Your task to perform on an android device: View the shopping cart on target. Add "macbook pro 15 inch" to the cart on target, then select checkout. Image 0: 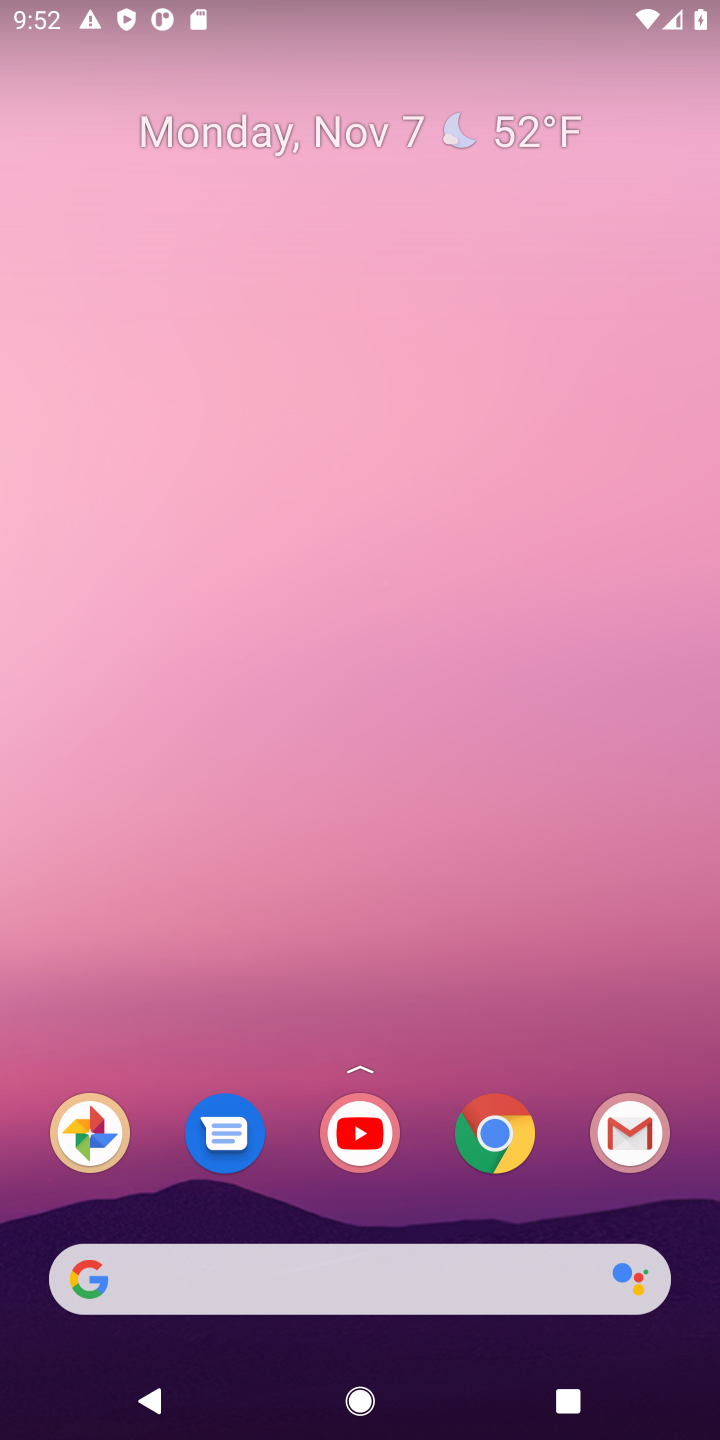
Step 0: press home button
Your task to perform on an android device: View the shopping cart on target. Add "macbook pro 15 inch" to the cart on target, then select checkout. Image 1: 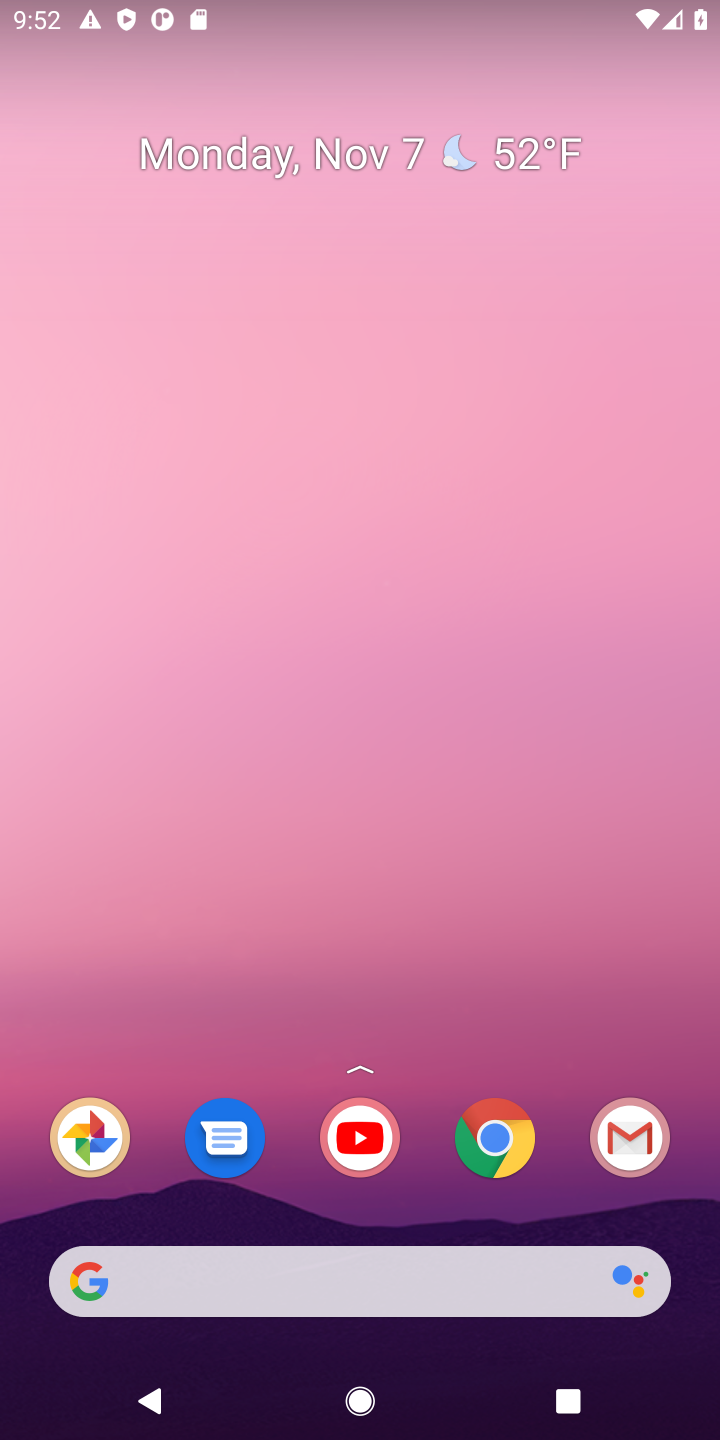
Step 1: drag from (411, 1202) to (416, 209)
Your task to perform on an android device: View the shopping cart on target. Add "macbook pro 15 inch" to the cart on target, then select checkout. Image 2: 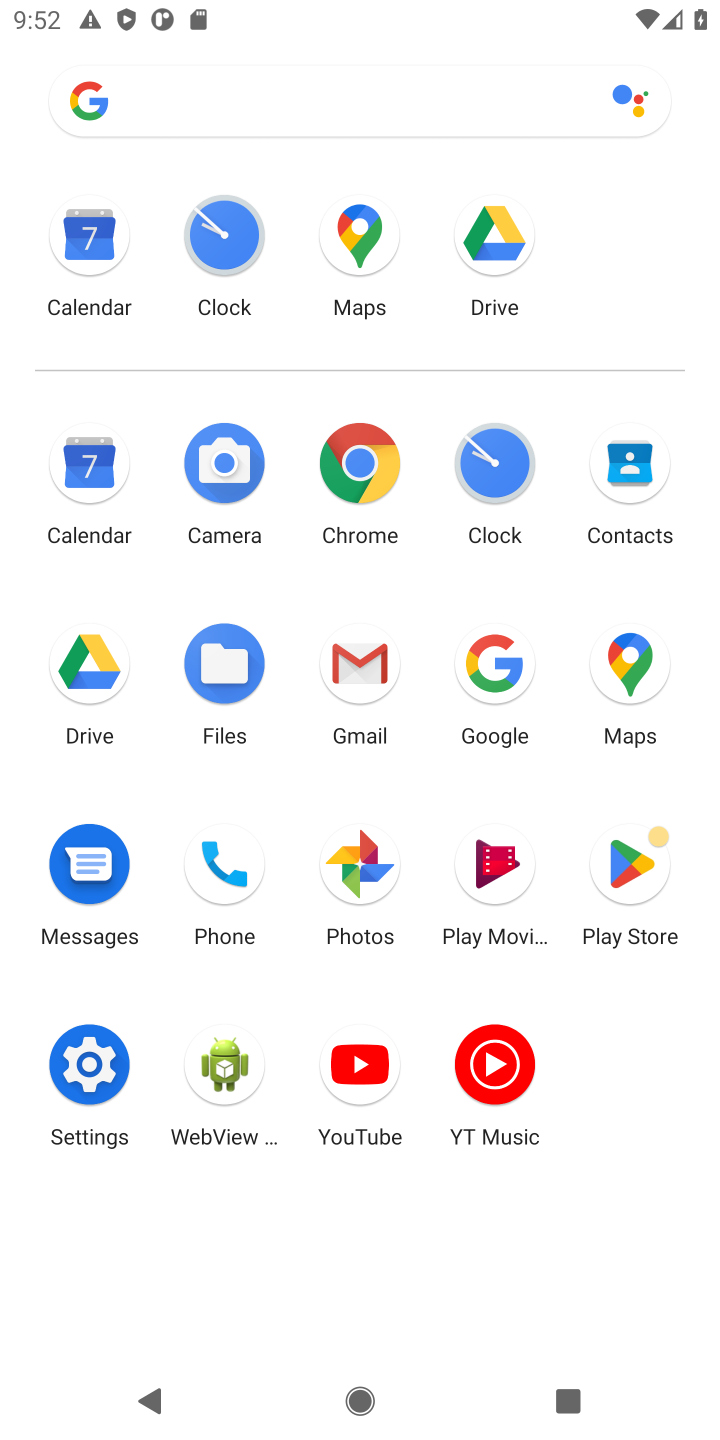
Step 2: click (361, 463)
Your task to perform on an android device: View the shopping cart on target. Add "macbook pro 15 inch" to the cart on target, then select checkout. Image 3: 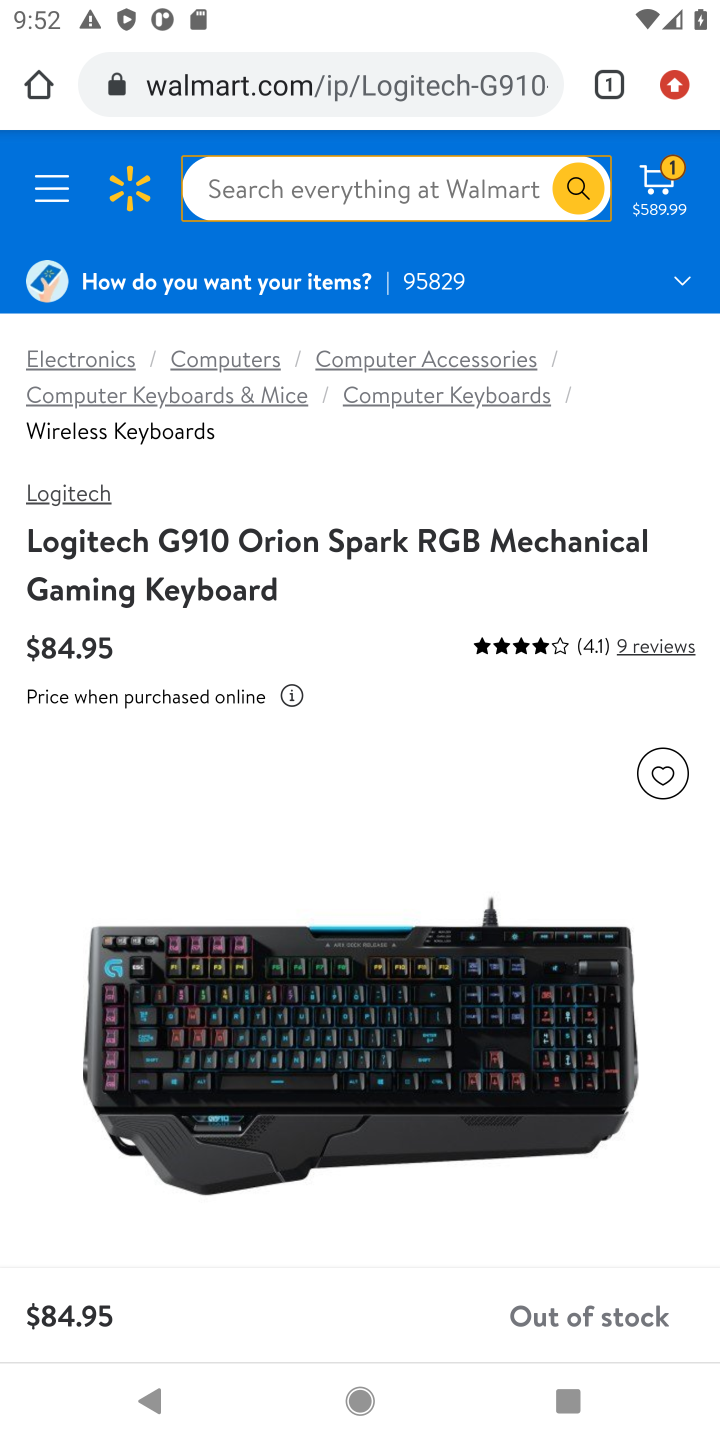
Step 3: click (386, 193)
Your task to perform on an android device: View the shopping cart on target. Add "macbook pro 15 inch" to the cart on target, then select checkout. Image 4: 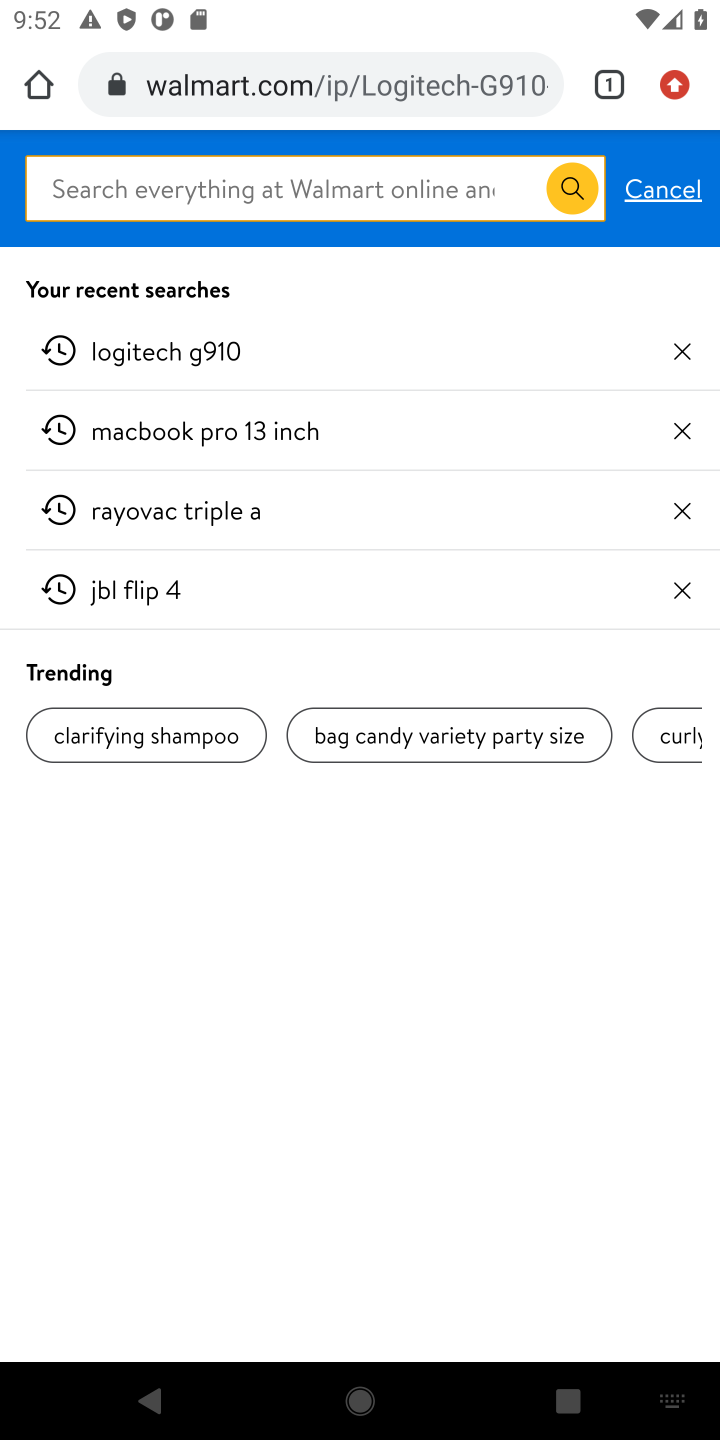
Step 4: type "target.com"
Your task to perform on an android device: View the shopping cart on target. Add "macbook pro 15 inch" to the cart on target, then select checkout. Image 5: 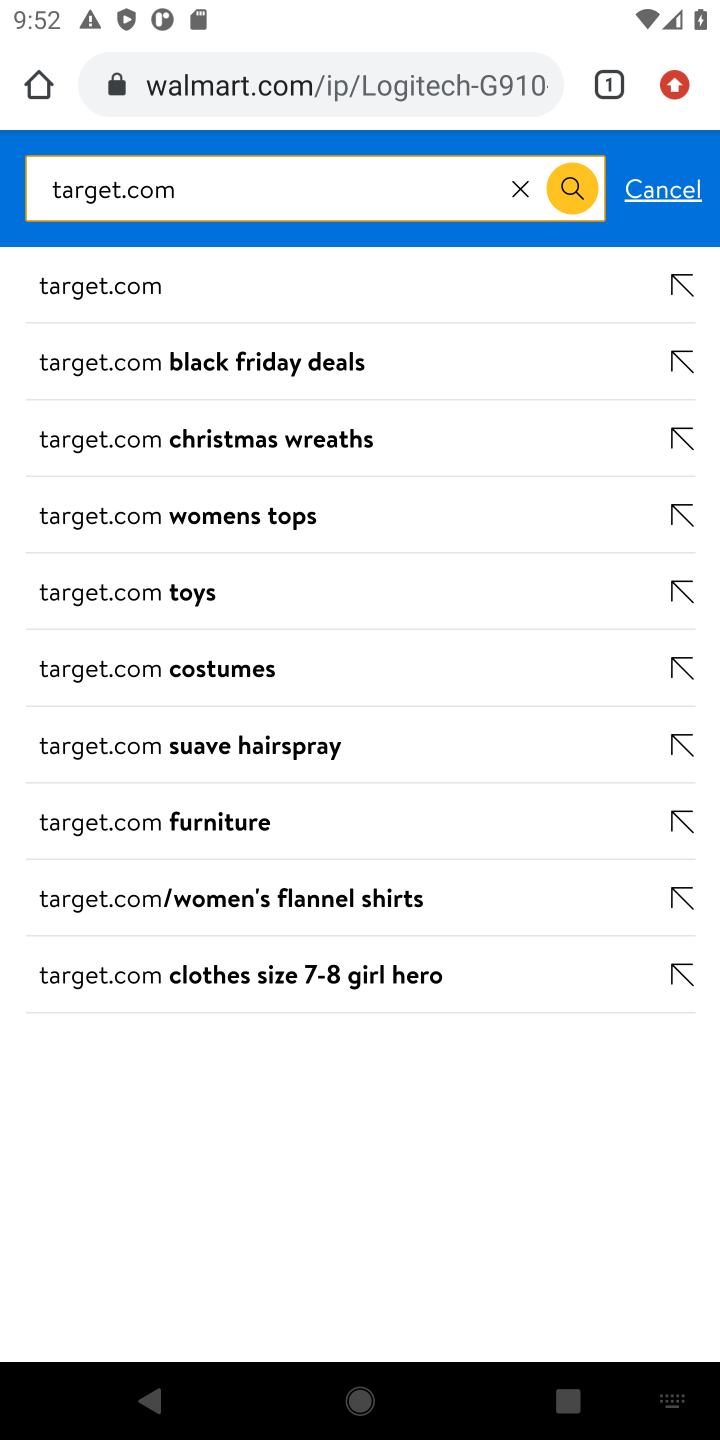
Step 5: press enter
Your task to perform on an android device: View the shopping cart on target. Add "macbook pro 15 inch" to the cart on target, then select checkout. Image 6: 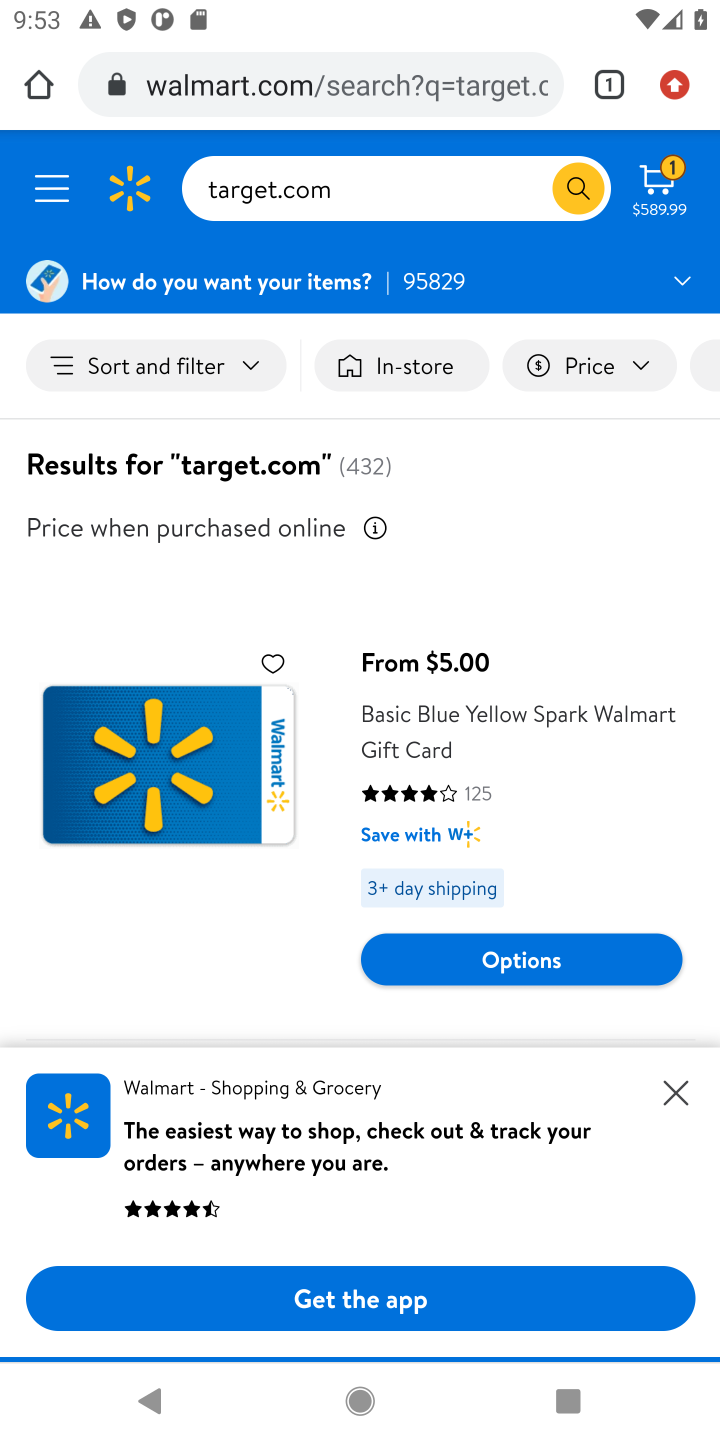
Step 6: drag from (284, 973) to (661, 91)
Your task to perform on an android device: View the shopping cart on target. Add "macbook pro 15 inch" to the cart on target, then select checkout. Image 7: 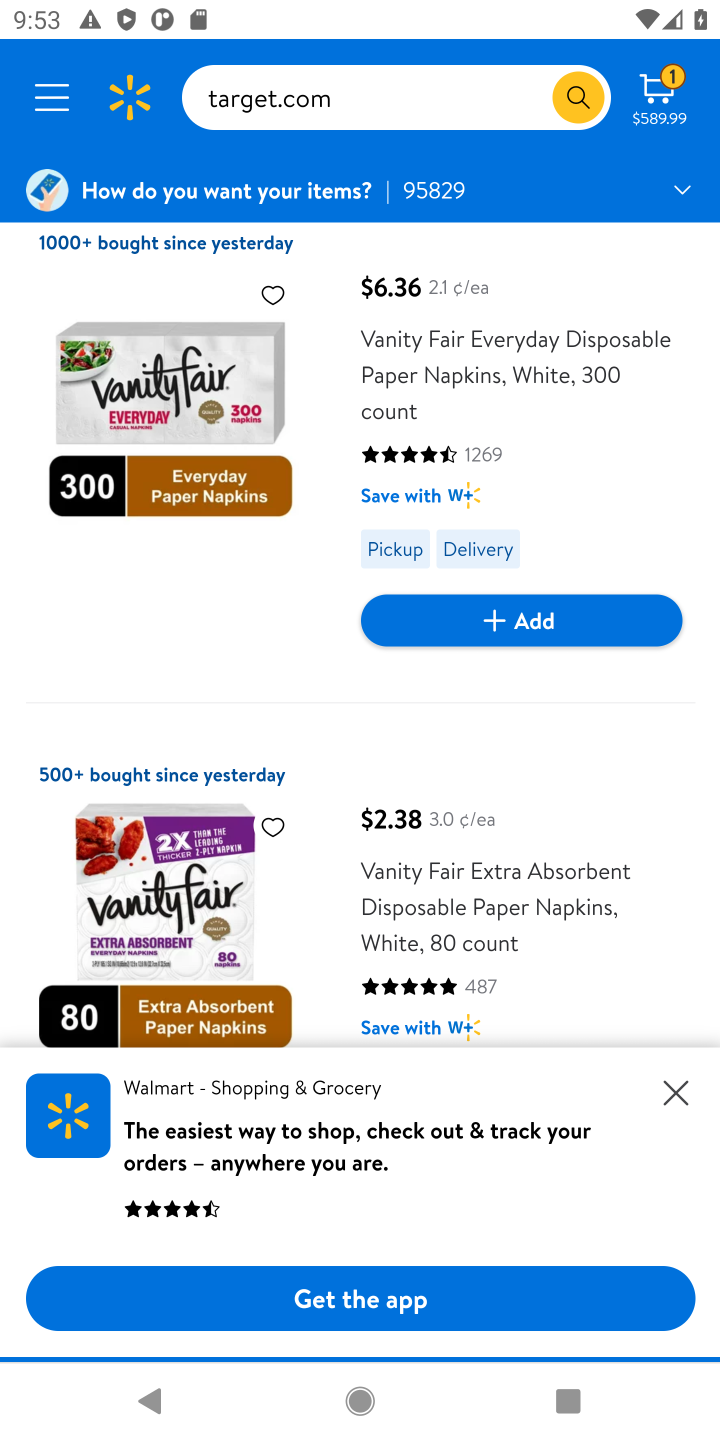
Step 7: click (652, 86)
Your task to perform on an android device: View the shopping cart on target. Add "macbook pro 15 inch" to the cart on target, then select checkout. Image 8: 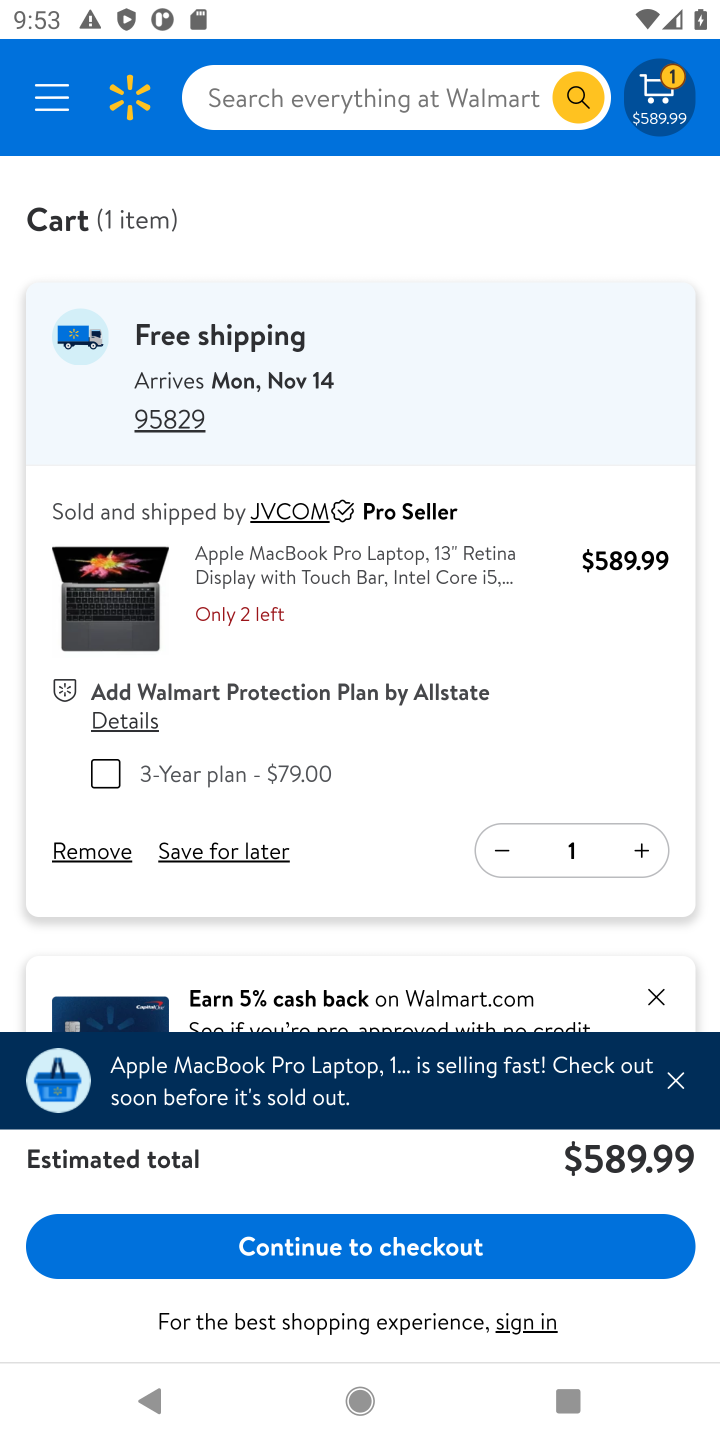
Step 8: click (428, 100)
Your task to perform on an android device: View the shopping cart on target. Add "macbook pro 15 inch" to the cart on target, then select checkout. Image 9: 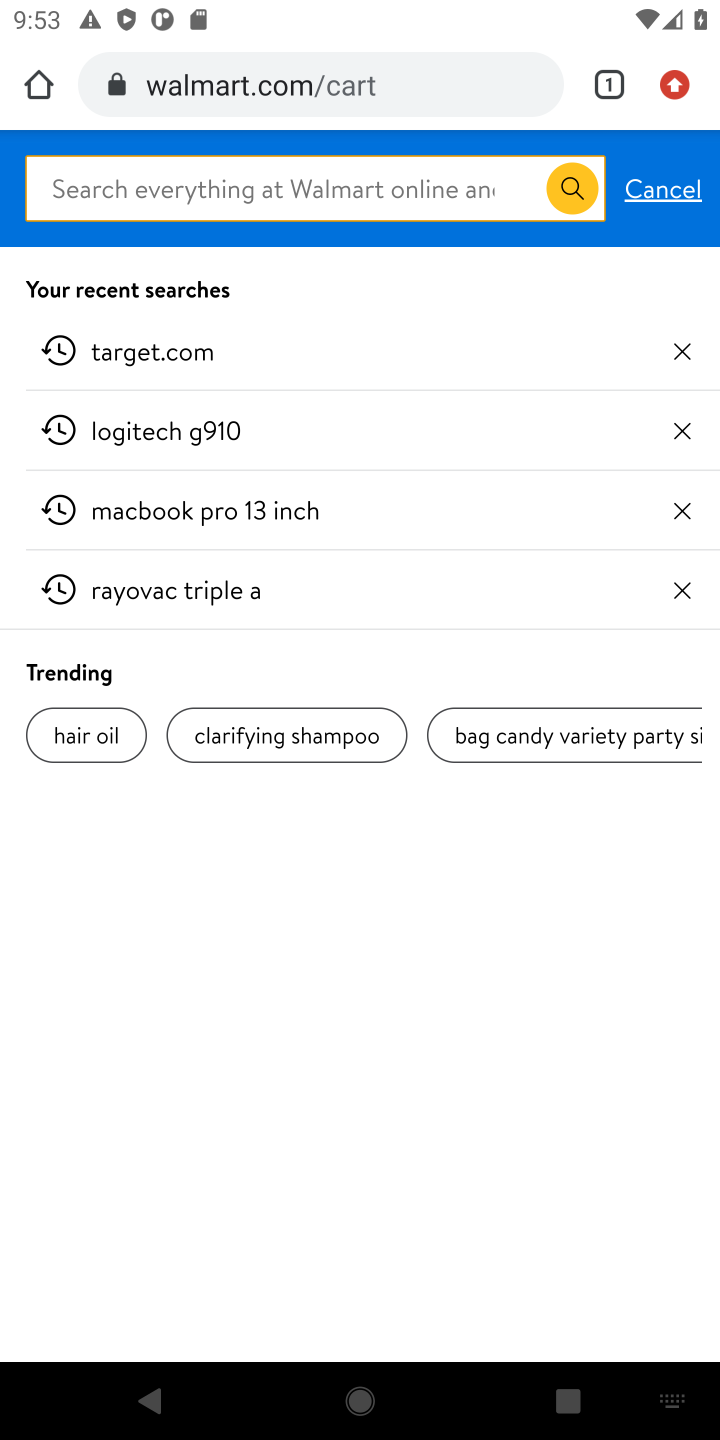
Step 9: type "macbook pro 15 inch"
Your task to perform on an android device: View the shopping cart on target. Add "macbook pro 15 inch" to the cart on target, then select checkout. Image 10: 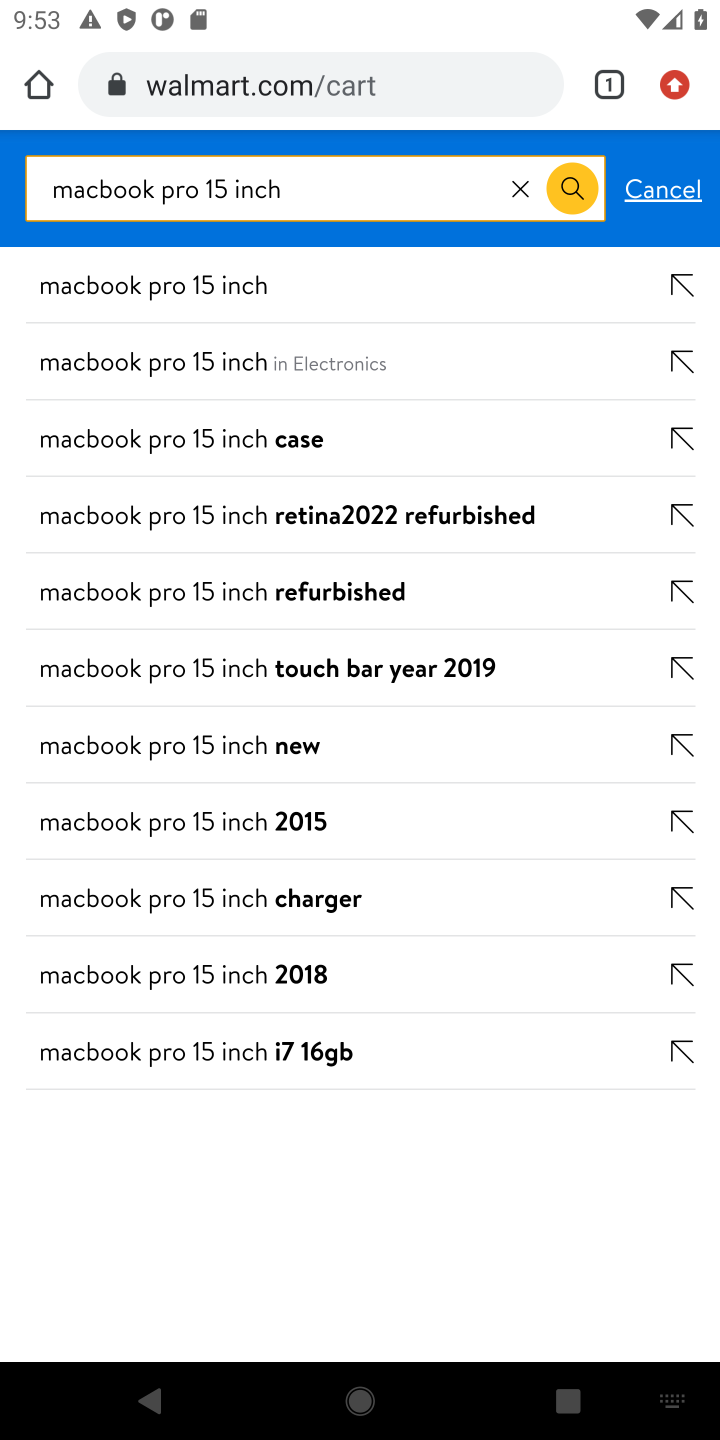
Step 10: press enter
Your task to perform on an android device: View the shopping cart on target. Add "macbook pro 15 inch" to the cart on target, then select checkout. Image 11: 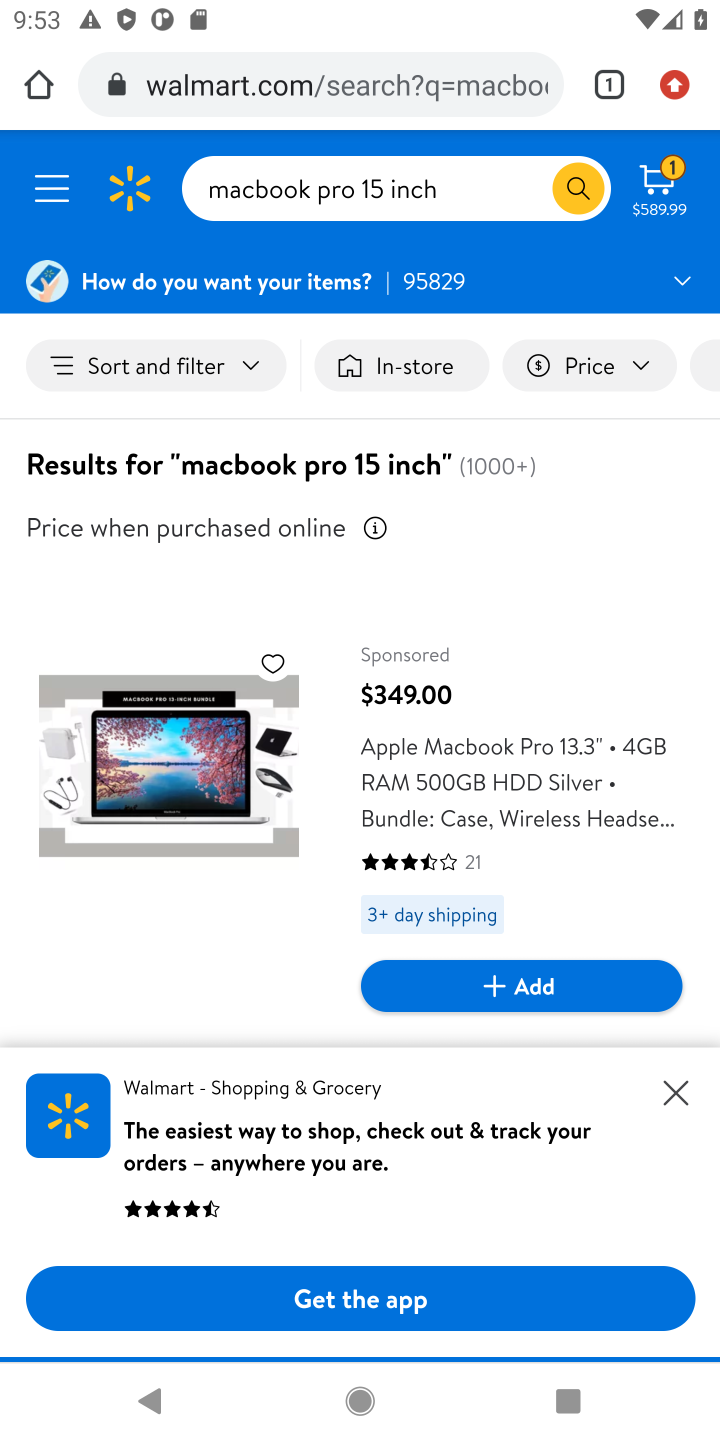
Step 11: drag from (507, 856) to (518, 104)
Your task to perform on an android device: View the shopping cart on target. Add "macbook pro 15 inch" to the cart on target, then select checkout. Image 12: 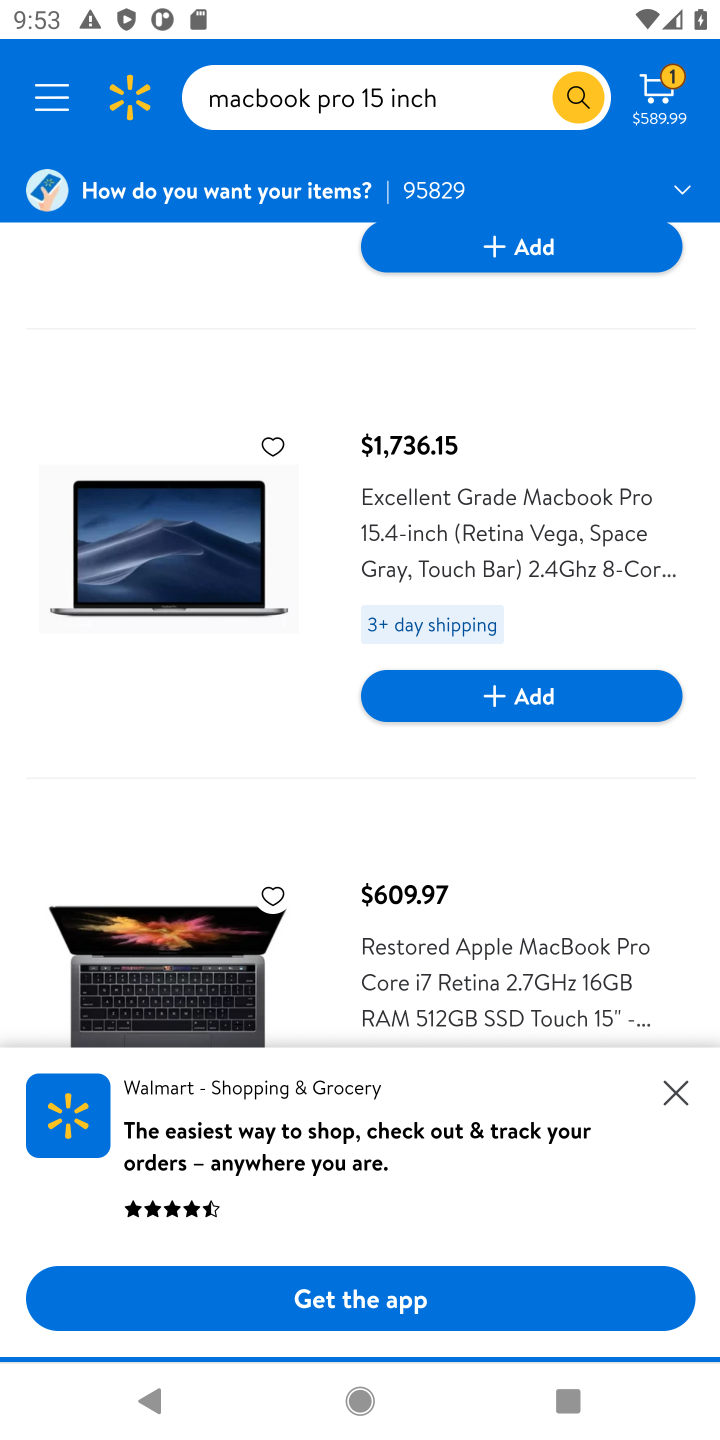
Step 12: drag from (516, 838) to (419, 1126)
Your task to perform on an android device: View the shopping cart on target. Add "macbook pro 15 inch" to the cart on target, then select checkout. Image 13: 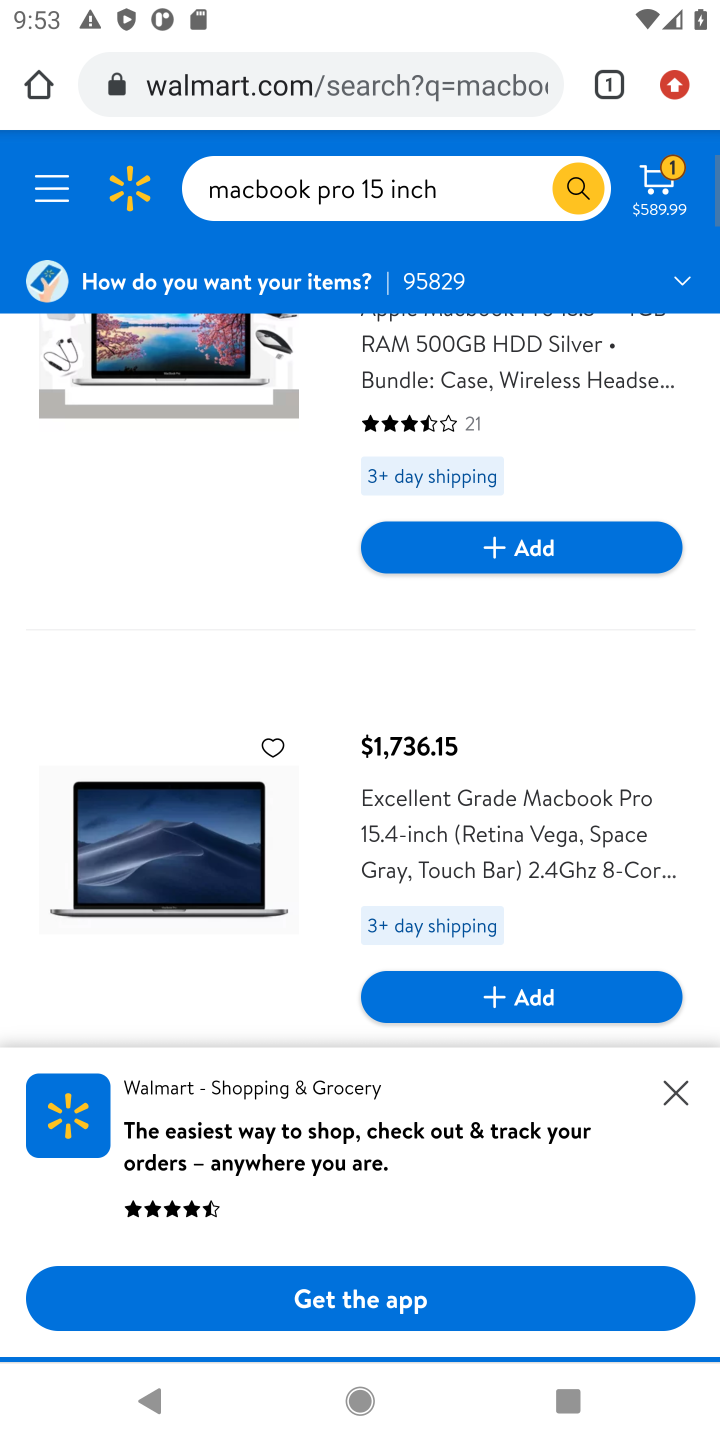
Step 13: drag from (253, 612) to (328, 1042)
Your task to perform on an android device: View the shopping cart on target. Add "macbook pro 15 inch" to the cart on target, then select checkout. Image 14: 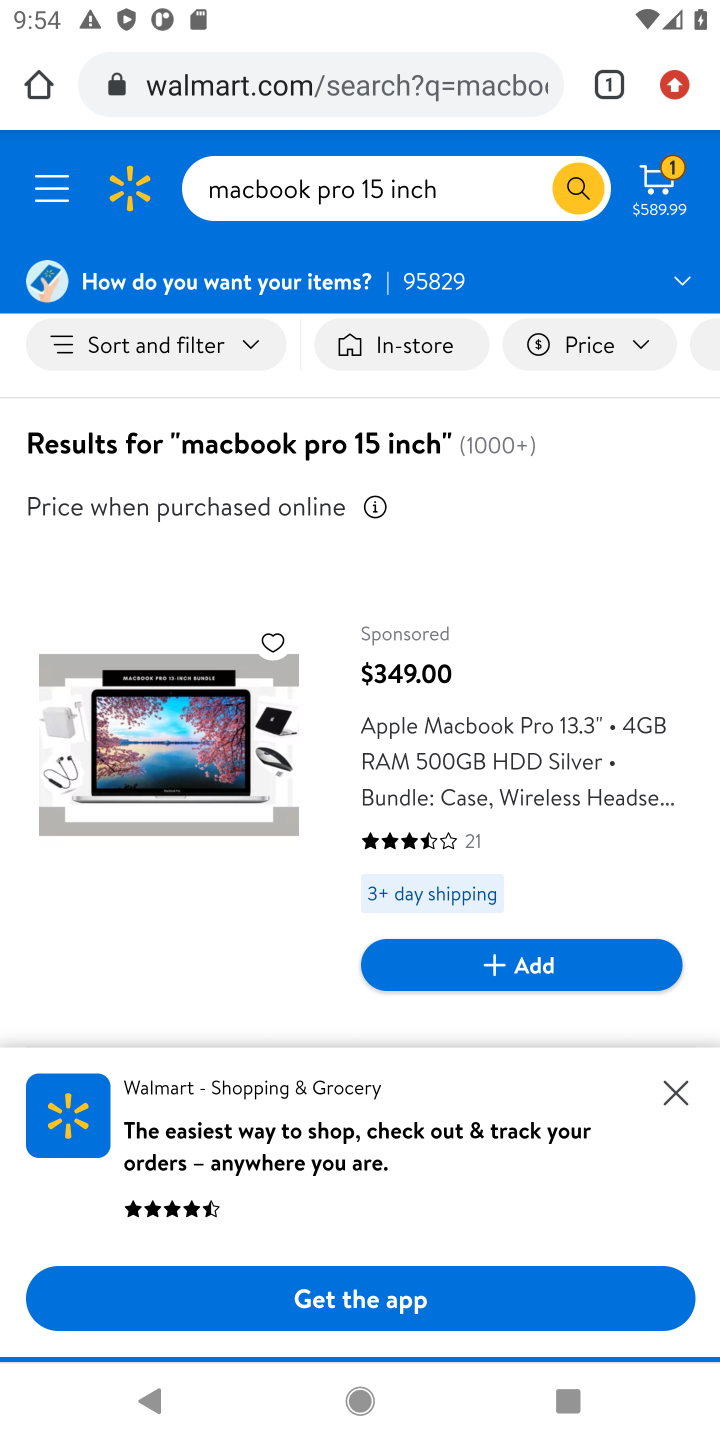
Step 14: drag from (284, 993) to (240, 235)
Your task to perform on an android device: View the shopping cart on target. Add "macbook pro 15 inch" to the cart on target, then select checkout. Image 15: 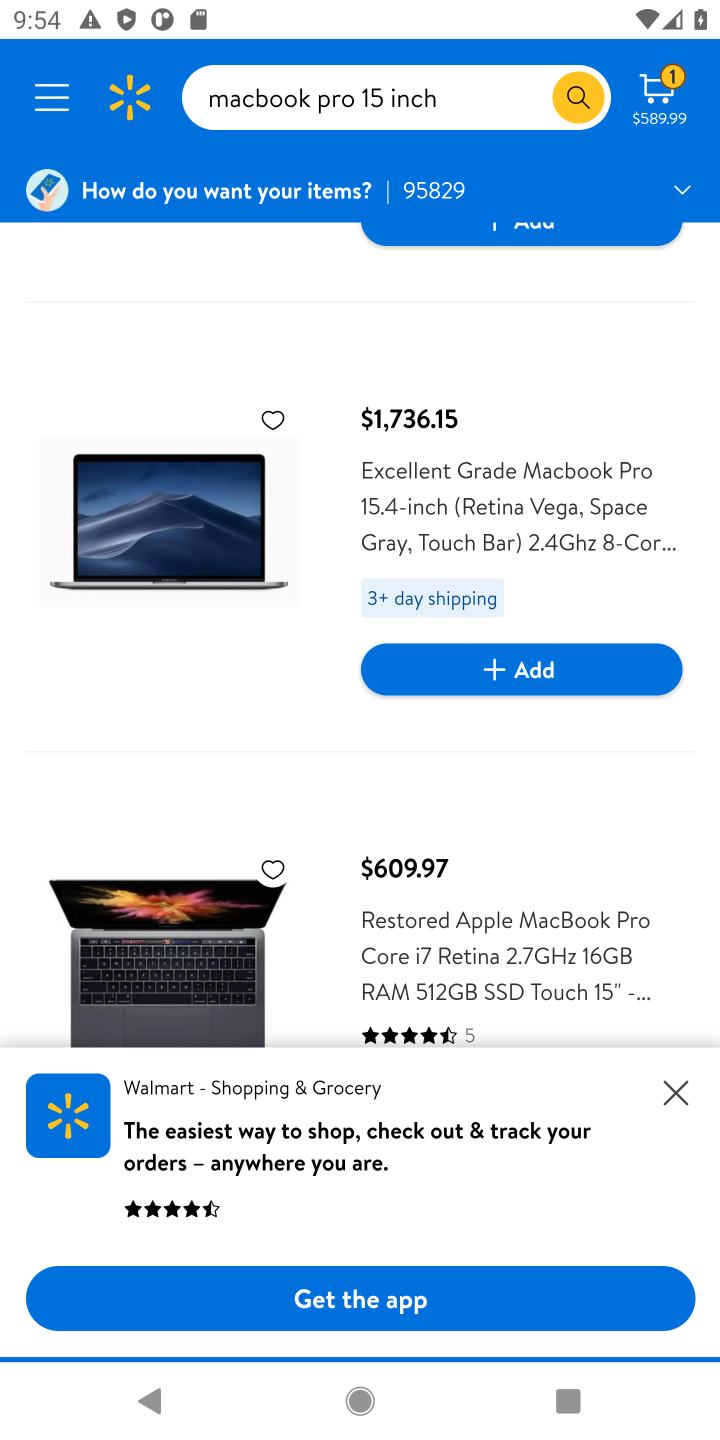
Step 15: drag from (327, 796) to (279, 298)
Your task to perform on an android device: View the shopping cart on target. Add "macbook pro 15 inch" to the cart on target, then select checkout. Image 16: 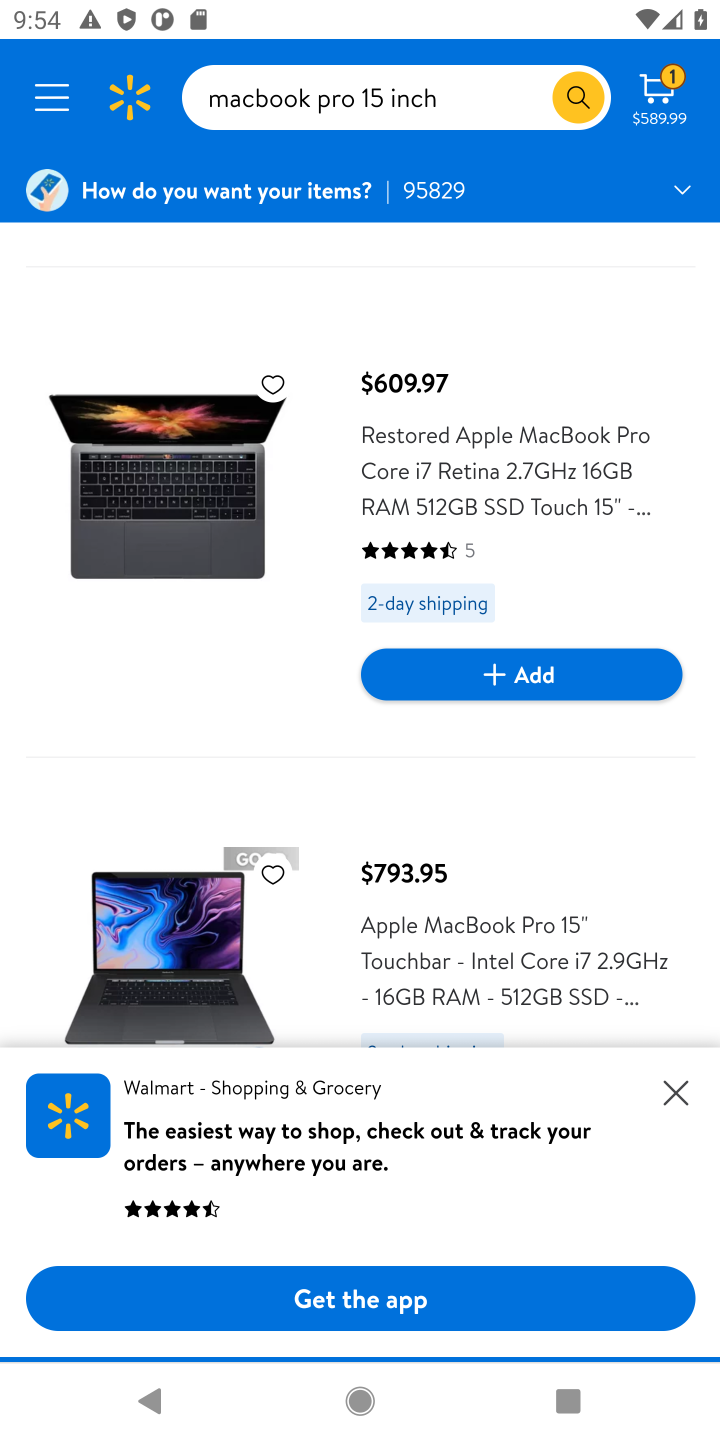
Step 16: drag from (362, 982) to (292, 464)
Your task to perform on an android device: View the shopping cart on target. Add "macbook pro 15 inch" to the cart on target, then select checkout. Image 17: 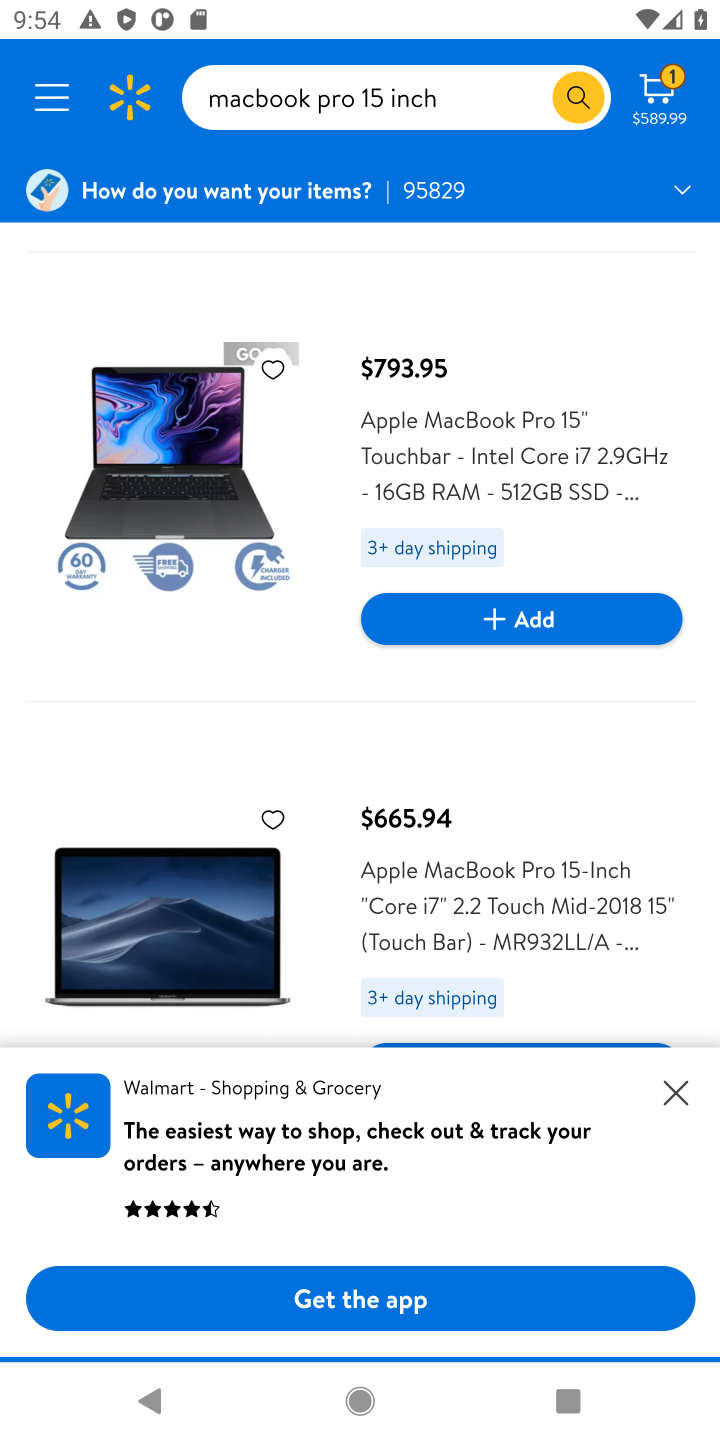
Step 17: click (513, 612)
Your task to perform on an android device: View the shopping cart on target. Add "macbook pro 15 inch" to the cart on target, then select checkout. Image 18: 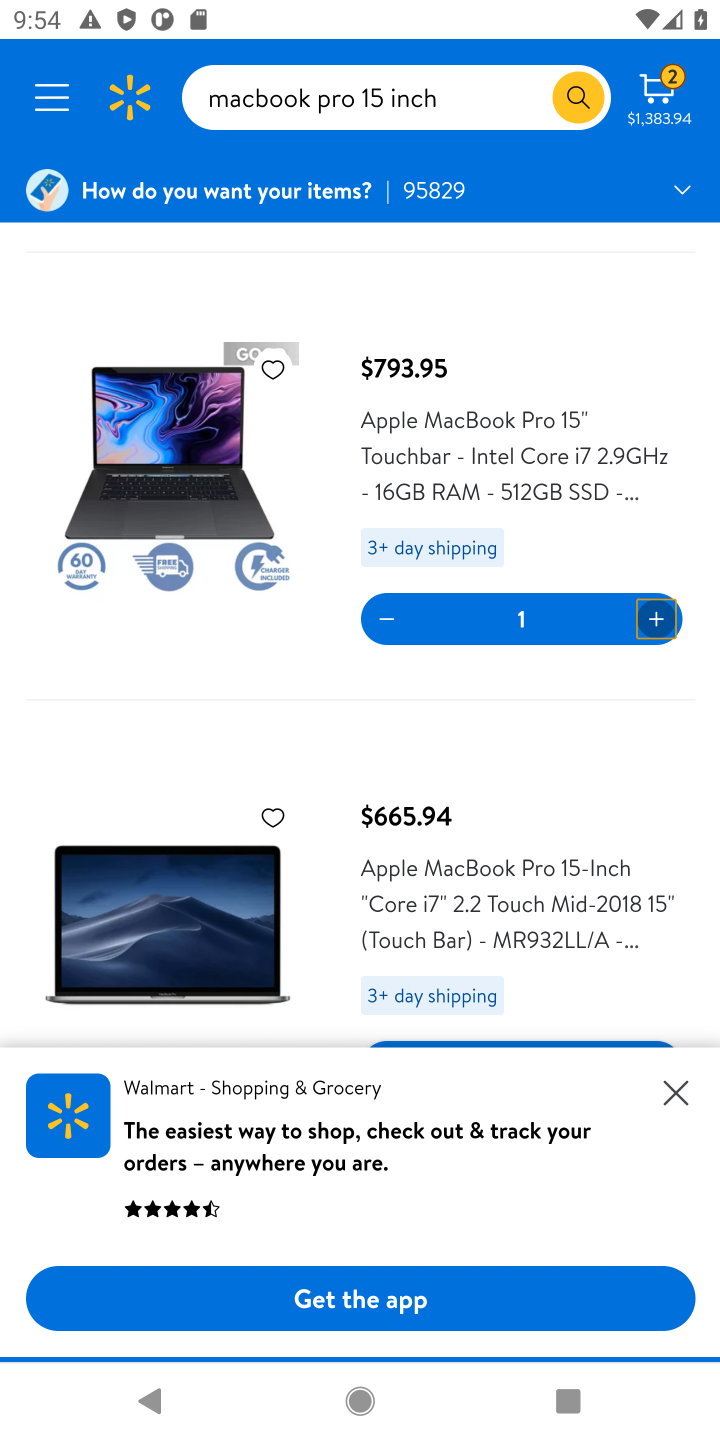
Step 18: click (664, 98)
Your task to perform on an android device: View the shopping cart on target. Add "macbook pro 15 inch" to the cart on target, then select checkout. Image 19: 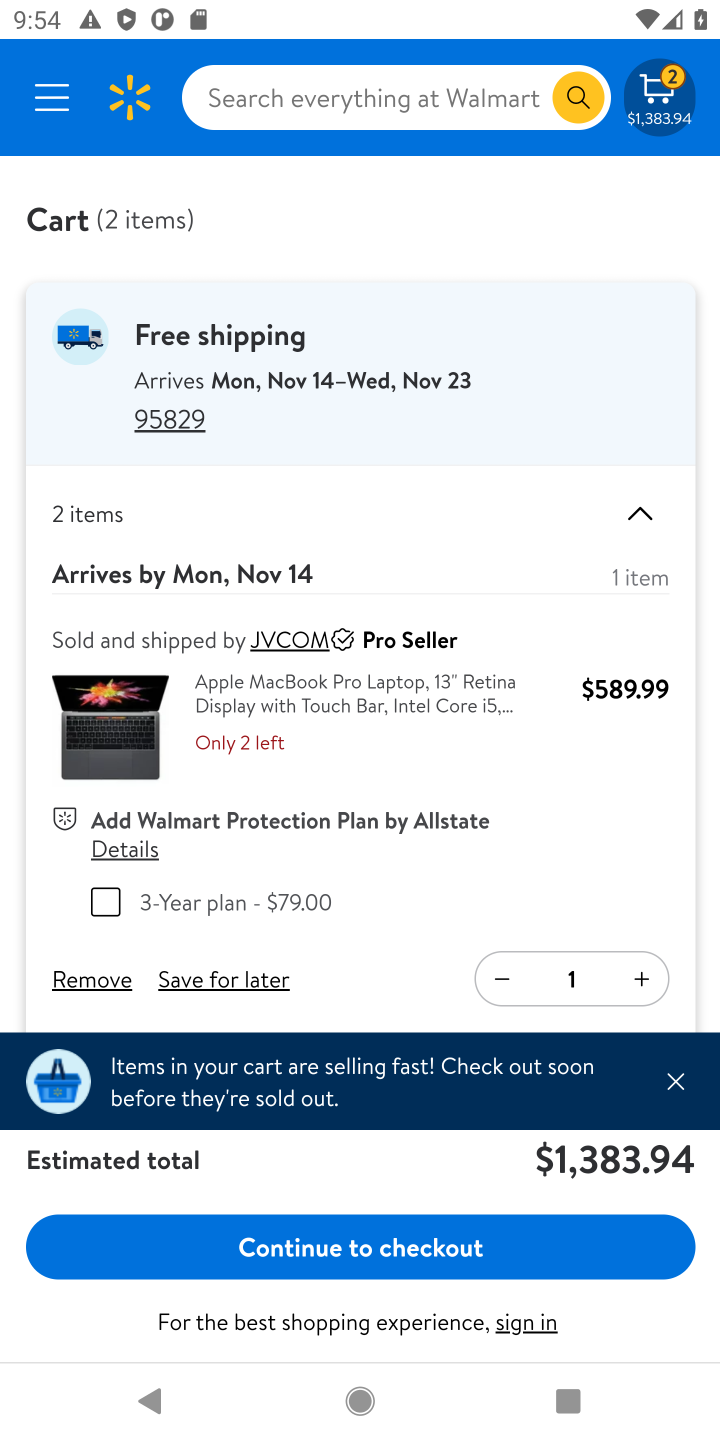
Step 19: click (383, 1257)
Your task to perform on an android device: View the shopping cart on target. Add "macbook pro 15 inch" to the cart on target, then select checkout. Image 20: 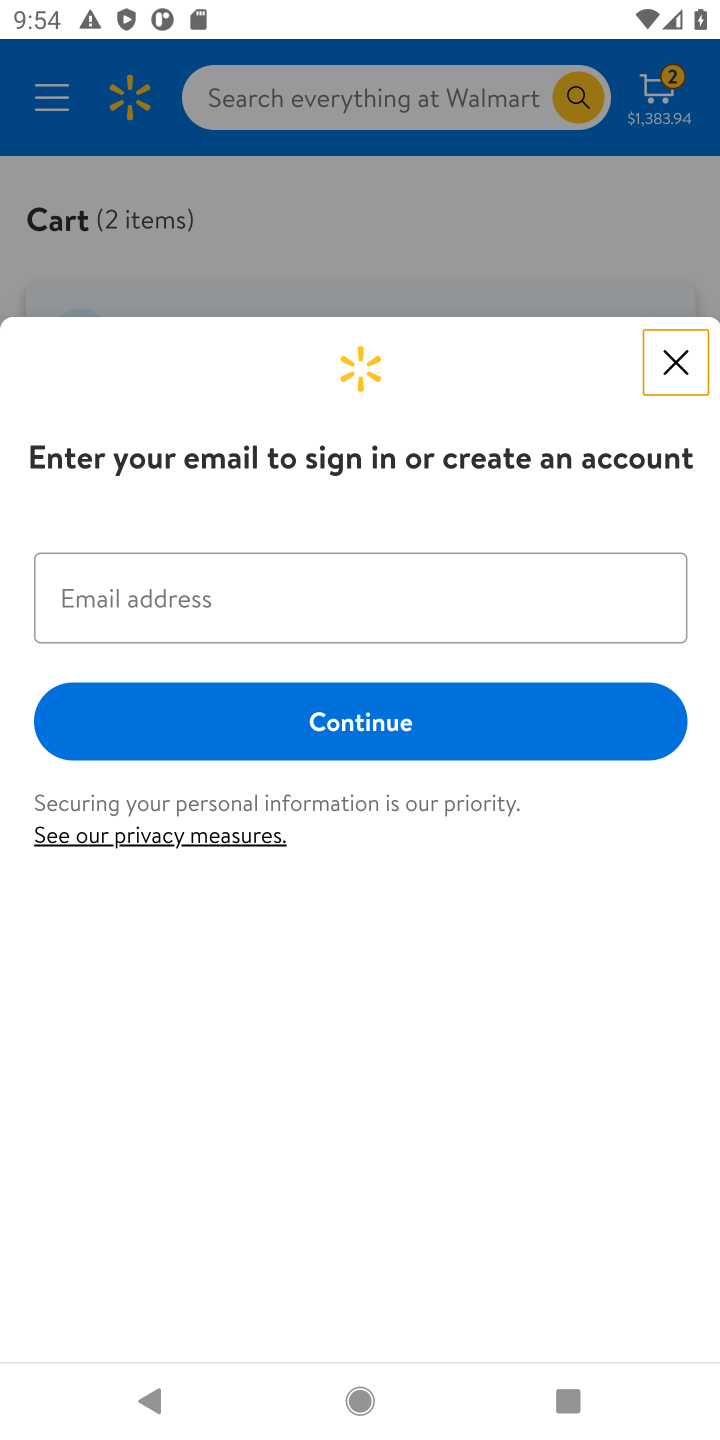
Step 20: task complete